Your task to perform on an android device: change the clock display to digital Image 0: 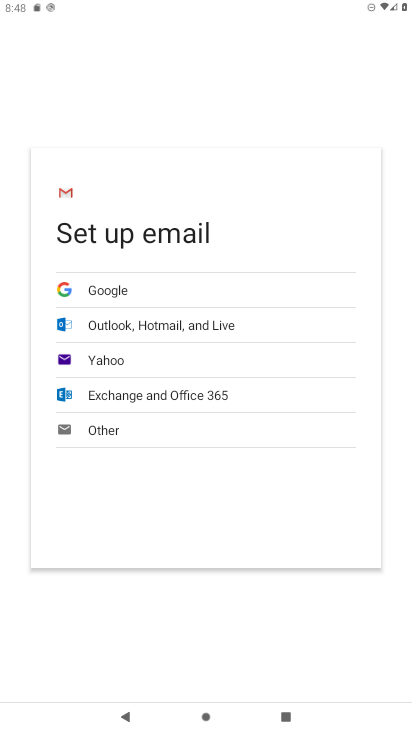
Step 0: press home button
Your task to perform on an android device: change the clock display to digital Image 1: 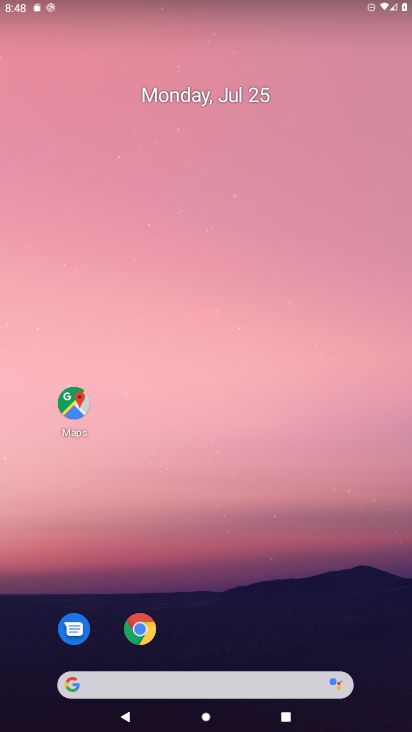
Step 1: drag from (234, 623) to (222, 9)
Your task to perform on an android device: change the clock display to digital Image 2: 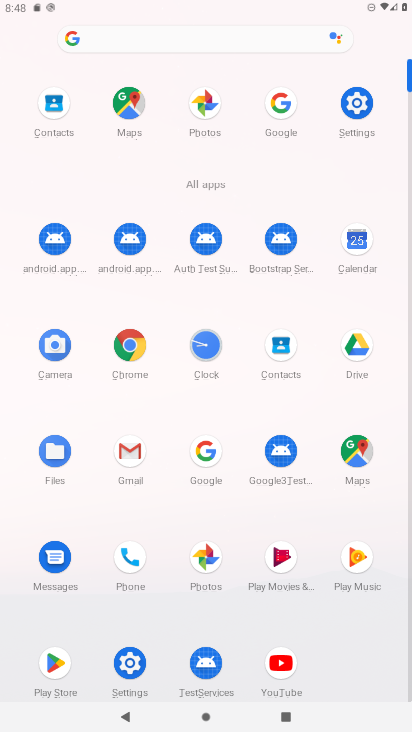
Step 2: click (205, 345)
Your task to perform on an android device: change the clock display to digital Image 3: 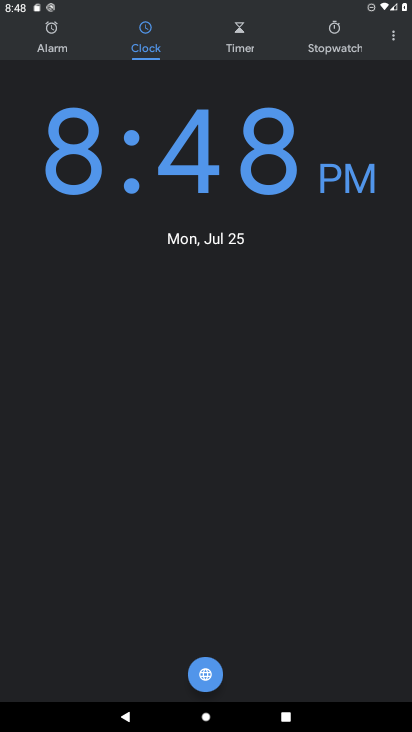
Step 3: click (393, 36)
Your task to perform on an android device: change the clock display to digital Image 4: 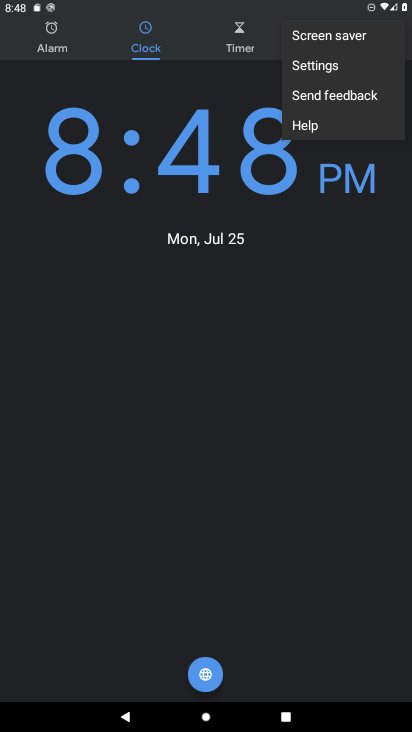
Step 4: click (337, 68)
Your task to perform on an android device: change the clock display to digital Image 5: 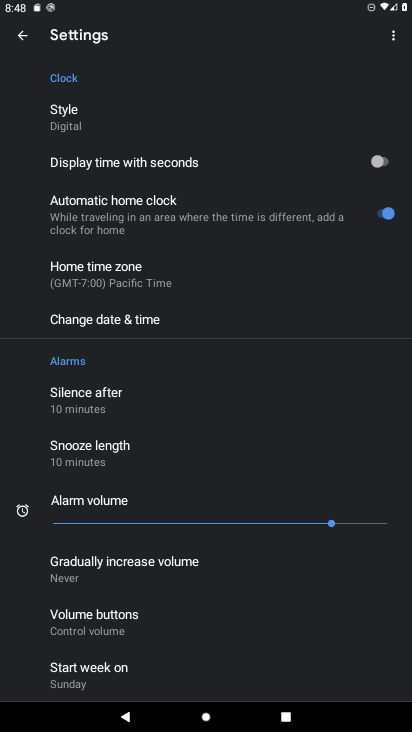
Step 5: task complete